Your task to perform on an android device: Turn on the flashlight Image 0: 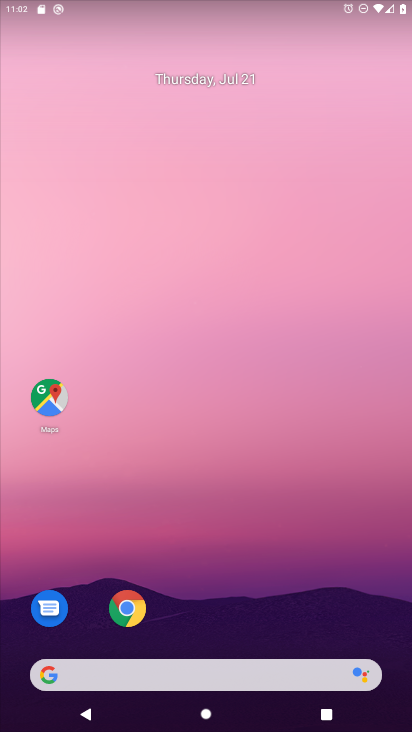
Step 0: drag from (343, 617) to (111, 28)
Your task to perform on an android device: Turn on the flashlight Image 1: 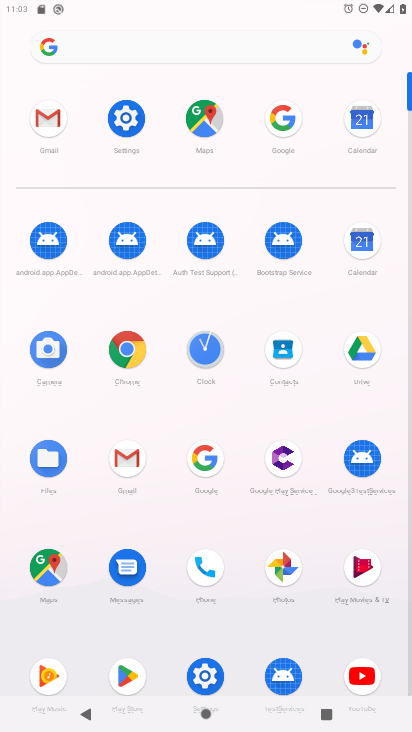
Step 1: click (195, 665)
Your task to perform on an android device: Turn on the flashlight Image 2: 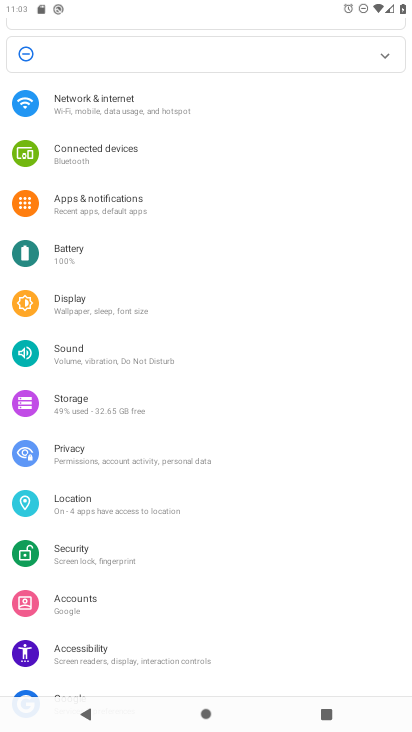
Step 2: task complete